Your task to perform on an android device: Search for a new desk on Ikea Image 0: 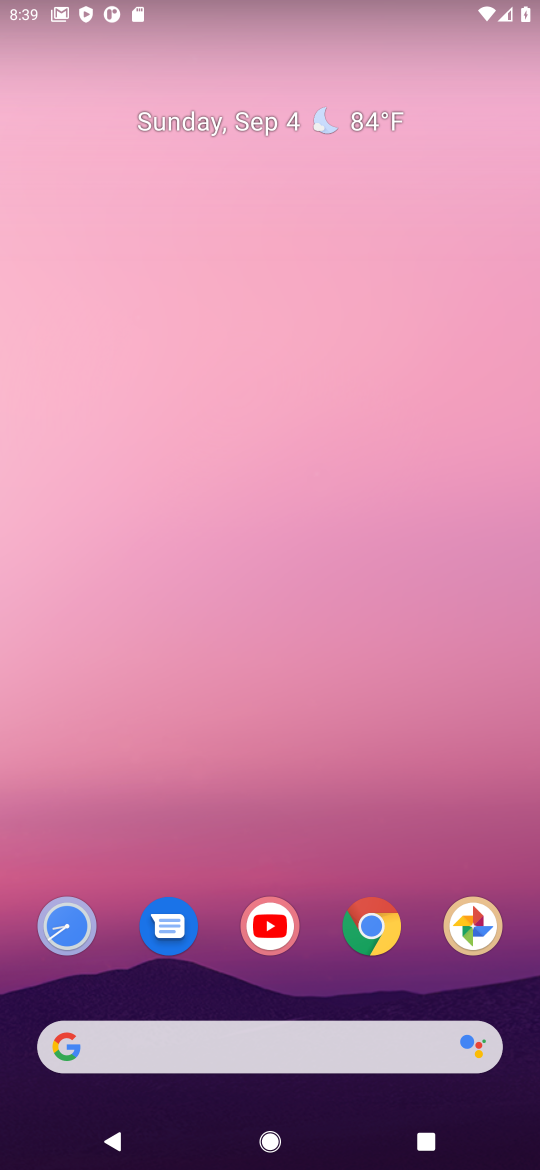
Step 0: click (209, 1050)
Your task to perform on an android device: Search for a new desk on Ikea Image 1: 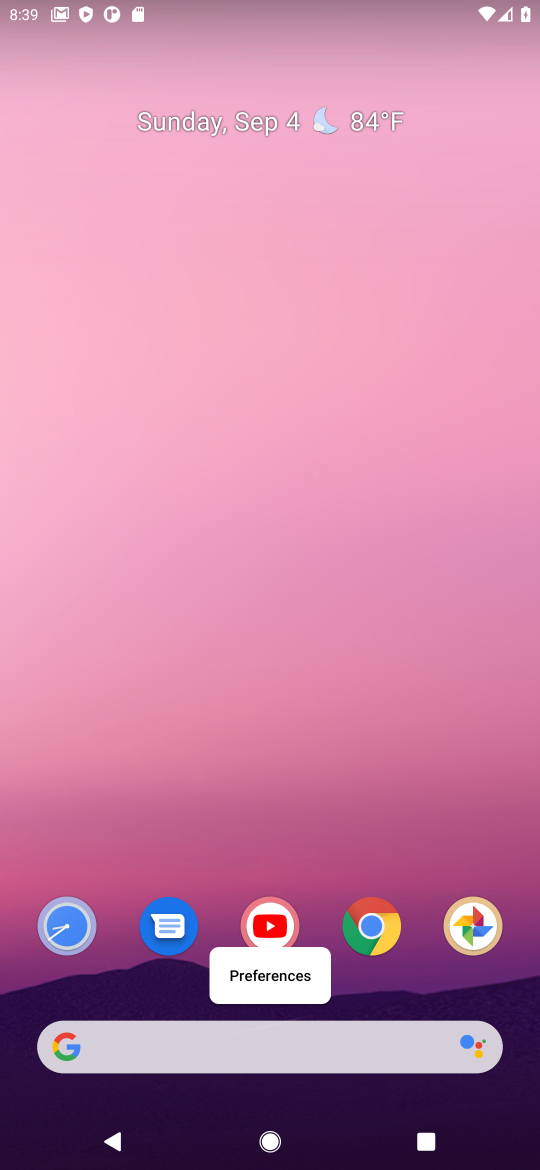
Step 1: click (60, 1048)
Your task to perform on an android device: Search for a new desk on Ikea Image 2: 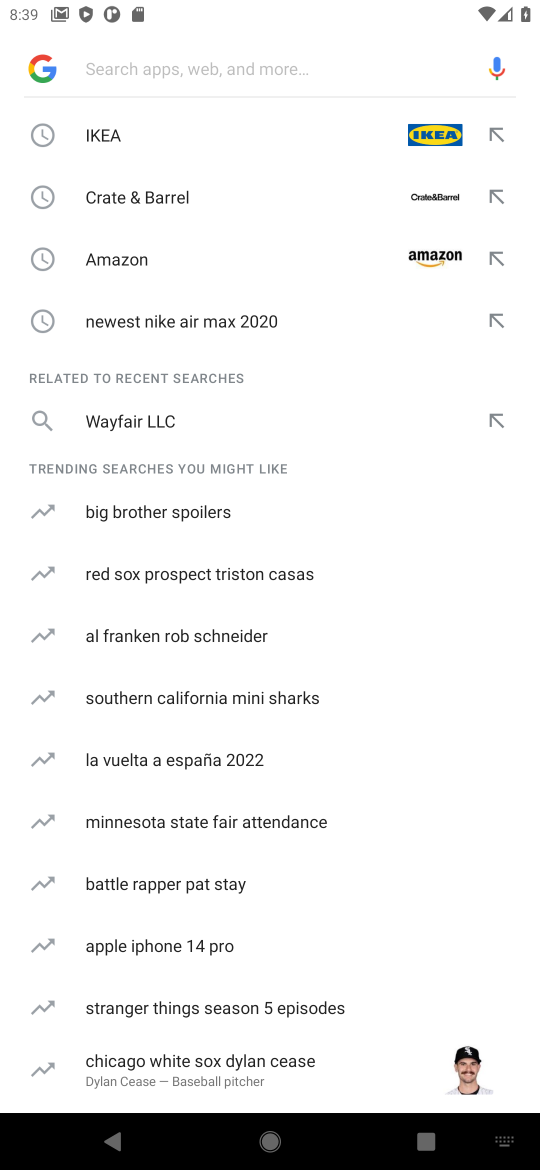
Step 2: click (113, 128)
Your task to perform on an android device: Search for a new desk on Ikea Image 3: 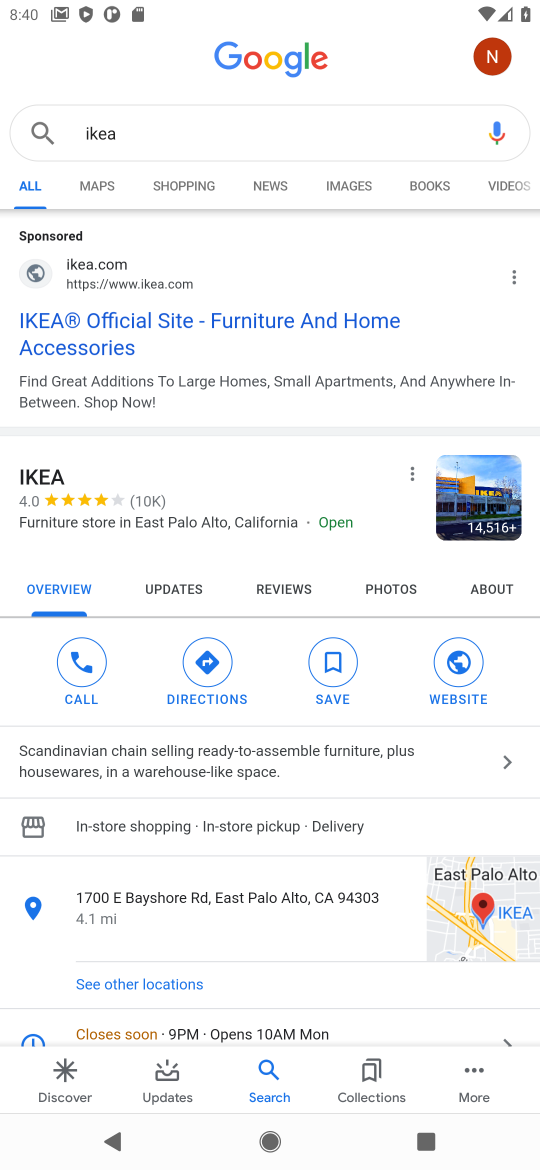
Step 3: click (127, 318)
Your task to perform on an android device: Search for a new desk on Ikea Image 4: 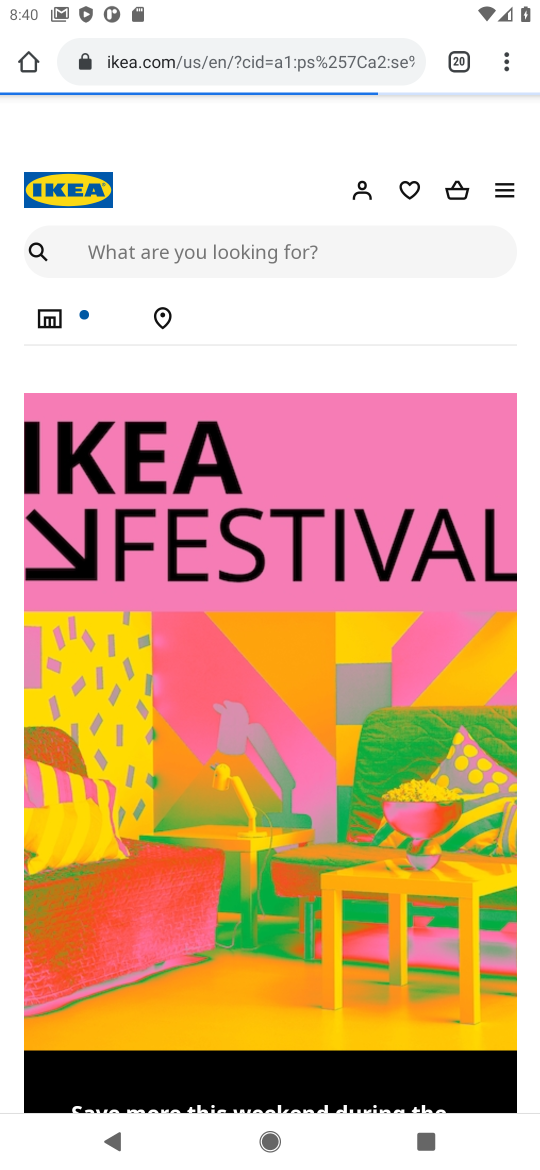
Step 4: click (221, 251)
Your task to perform on an android device: Search for a new desk on Ikea Image 5: 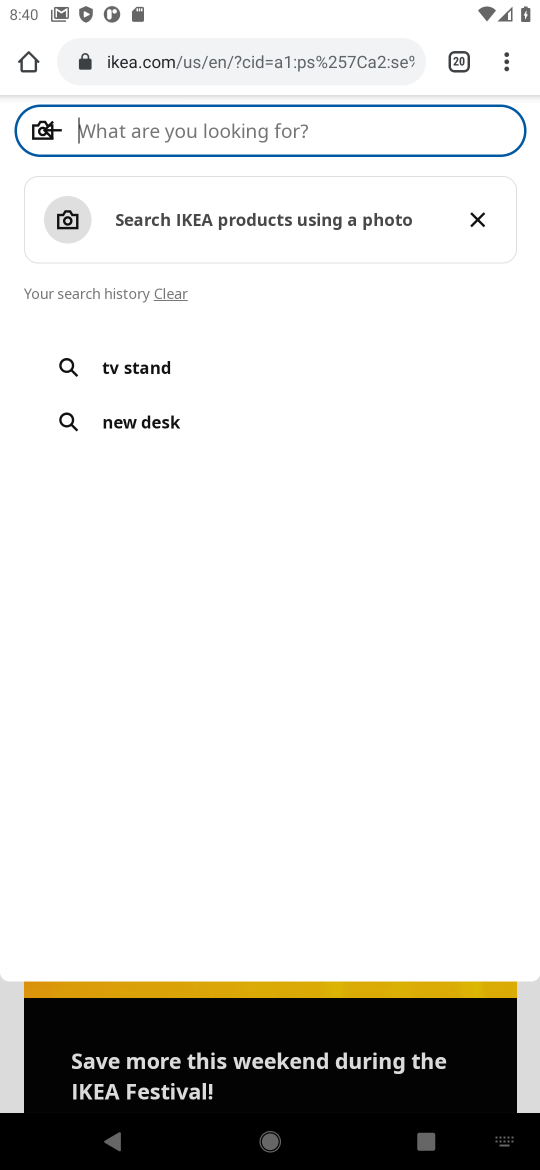
Step 5: click (164, 127)
Your task to perform on an android device: Search for a new desk on Ikea Image 6: 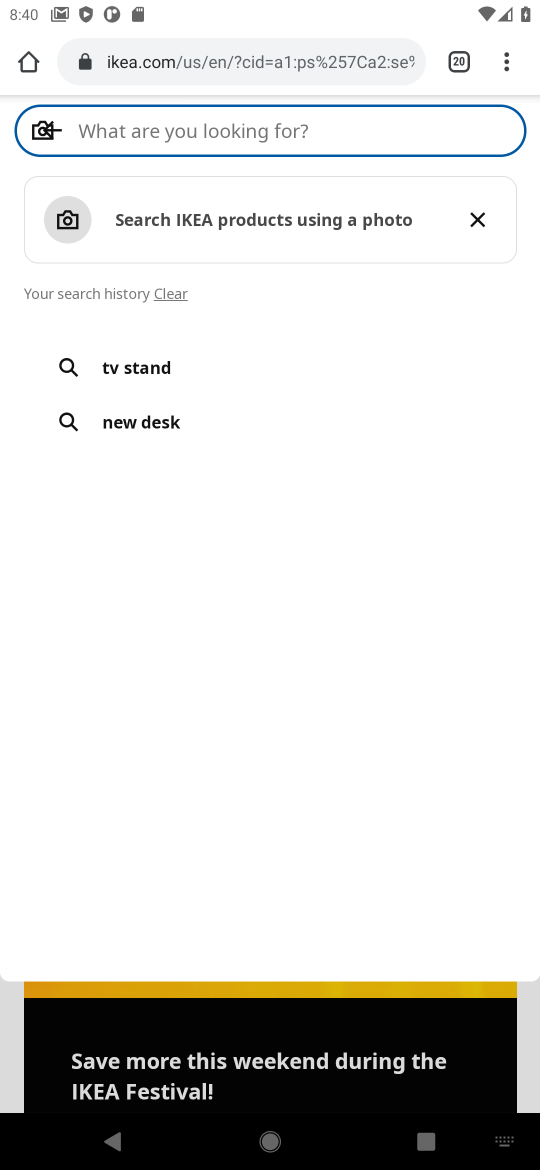
Step 6: type "new desk"
Your task to perform on an android device: Search for a new desk on Ikea Image 7: 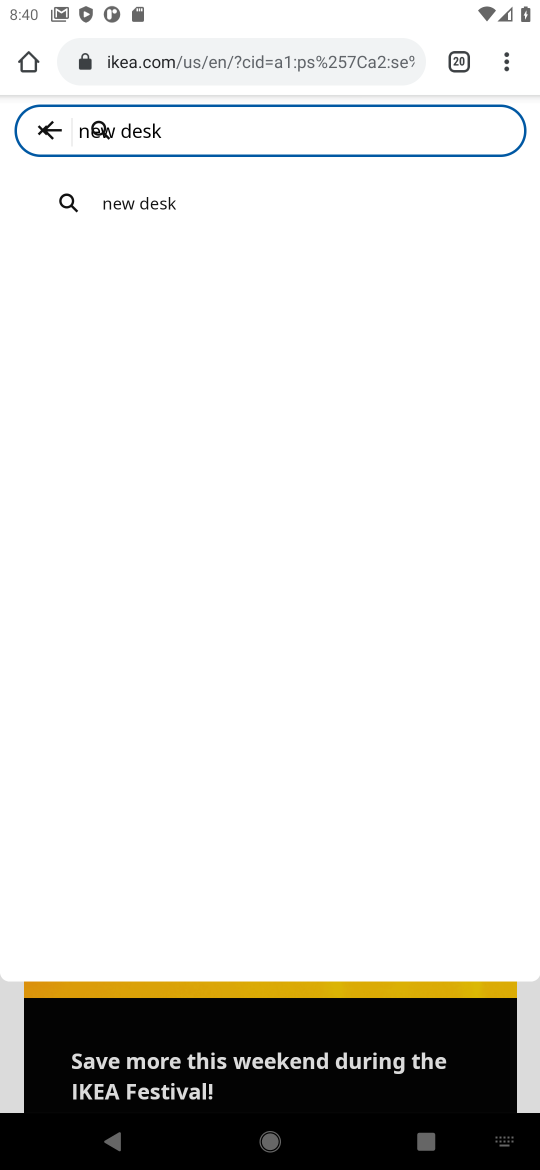
Step 7: click (77, 200)
Your task to perform on an android device: Search for a new desk on Ikea Image 8: 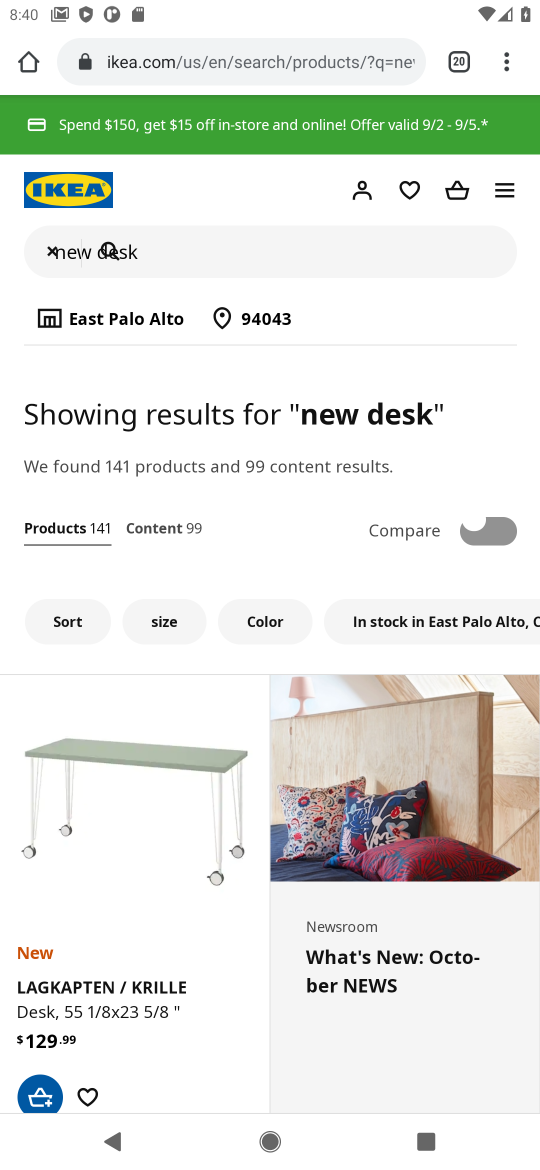
Step 8: task complete